Your task to perform on an android device: Go to CNN.com Image 0: 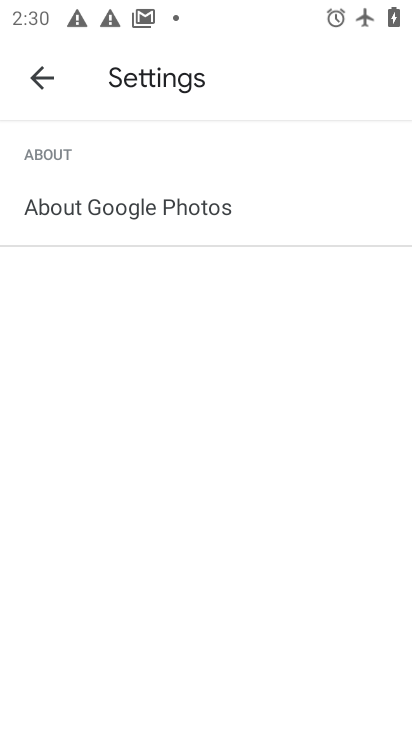
Step 0: press home button
Your task to perform on an android device: Go to CNN.com Image 1: 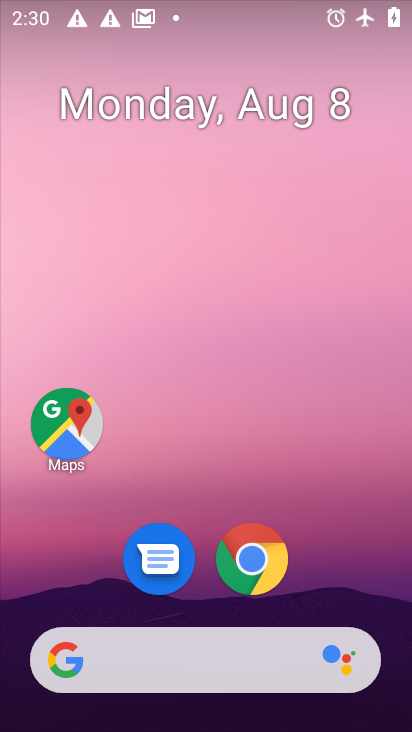
Step 1: click (249, 564)
Your task to perform on an android device: Go to CNN.com Image 2: 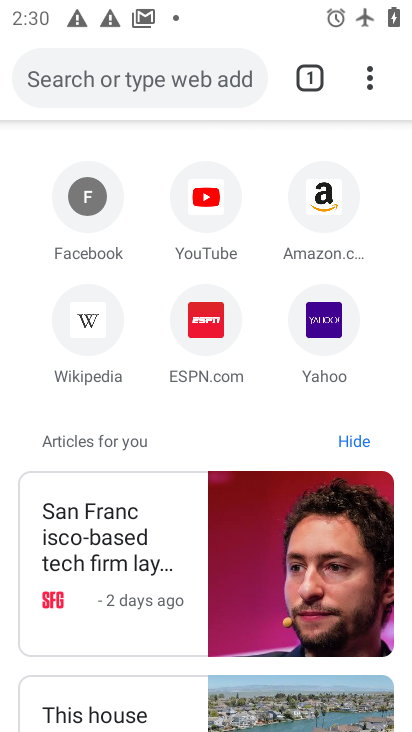
Step 2: click (210, 96)
Your task to perform on an android device: Go to CNN.com Image 3: 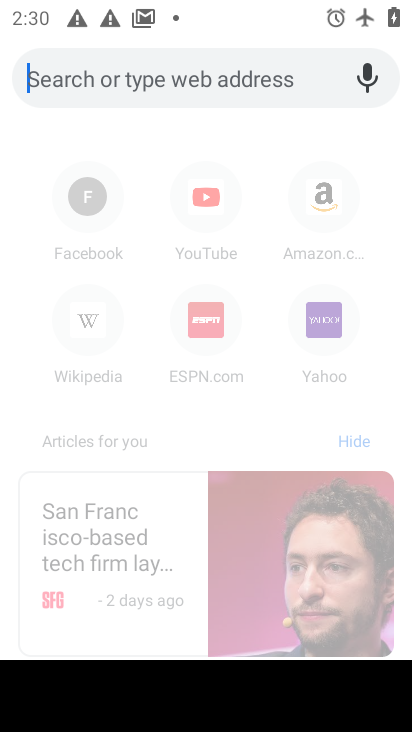
Step 3: type "CNN.com"
Your task to perform on an android device: Go to CNN.com Image 4: 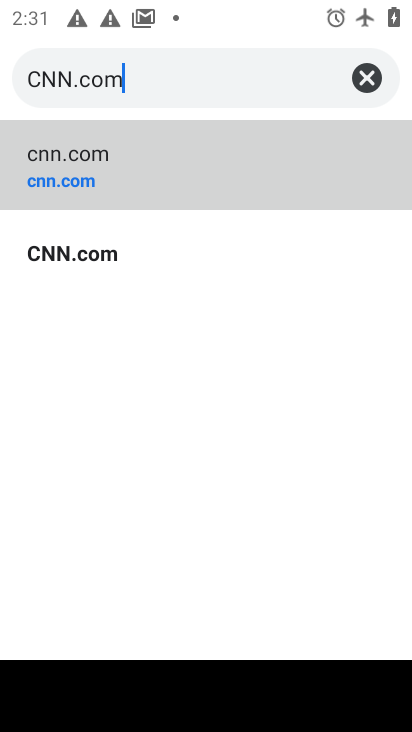
Step 4: click (78, 247)
Your task to perform on an android device: Go to CNN.com Image 5: 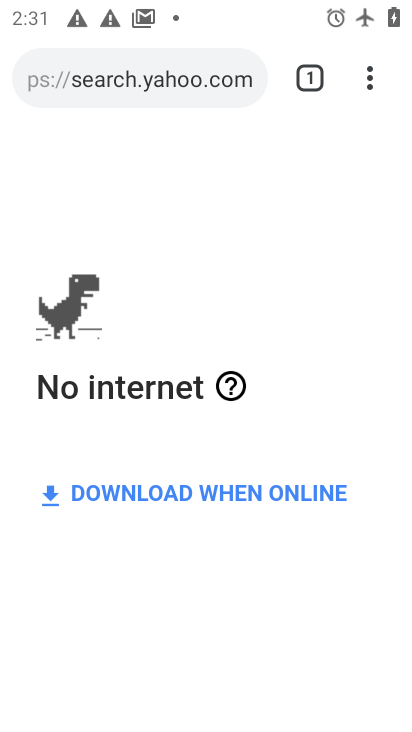
Step 5: task complete